Your task to perform on an android device: Look up the best rated headphones on Amazon. Image 0: 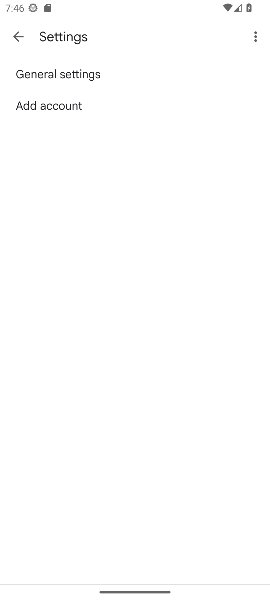
Step 0: press home button
Your task to perform on an android device: Look up the best rated headphones on Amazon. Image 1: 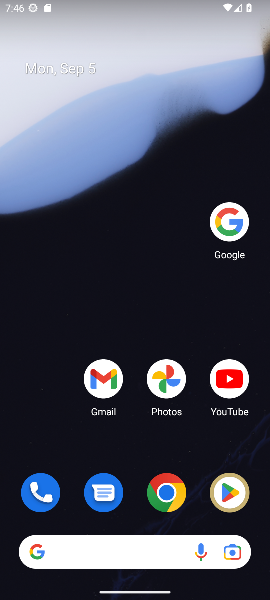
Step 1: click (225, 214)
Your task to perform on an android device: Look up the best rated headphones on Amazon. Image 2: 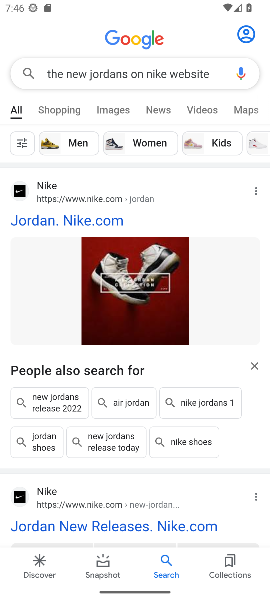
Step 2: click (213, 70)
Your task to perform on an android device: Look up the best rated headphones on Amazon. Image 3: 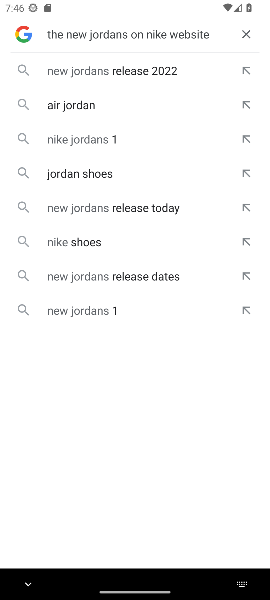
Step 3: click (239, 32)
Your task to perform on an android device: Look up the best rated headphones on Amazon. Image 4: 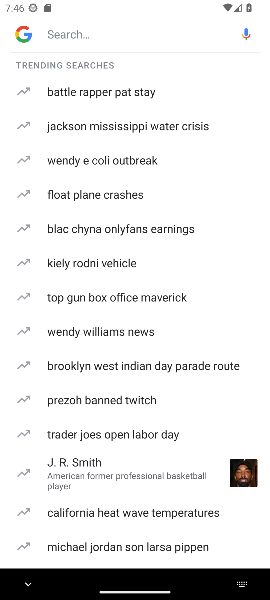
Step 4: click (136, 34)
Your task to perform on an android device: Look up the best rated headphones on Amazon. Image 5: 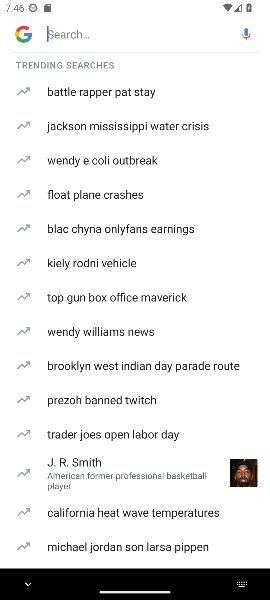
Step 5: type "the best rated headphones on Amazon "
Your task to perform on an android device: Look up the best rated headphones on Amazon. Image 6: 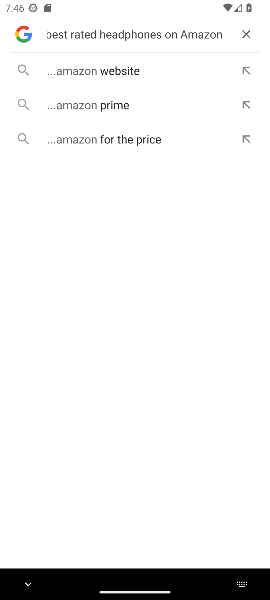
Step 6: click (131, 142)
Your task to perform on an android device: Look up the best rated headphones on Amazon. Image 7: 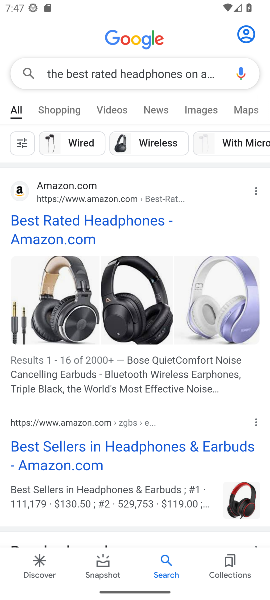
Step 7: drag from (89, 462) to (100, 393)
Your task to perform on an android device: Look up the best rated headphones on Amazon. Image 8: 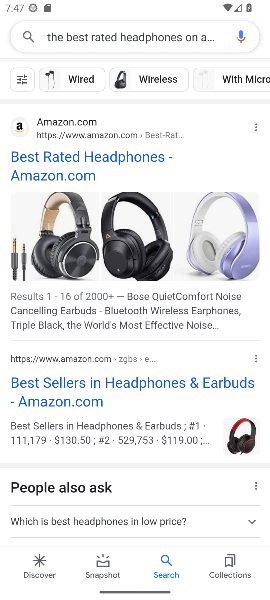
Step 8: click (64, 161)
Your task to perform on an android device: Look up the best rated headphones on Amazon. Image 9: 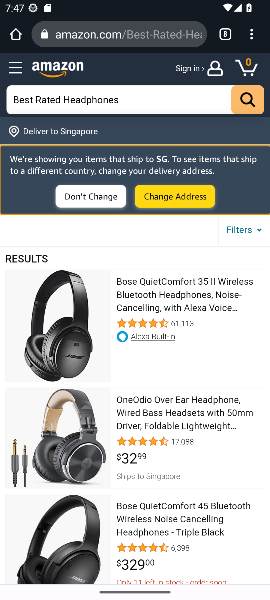
Step 9: task complete